Your task to perform on an android device: turn pop-ups off in chrome Image 0: 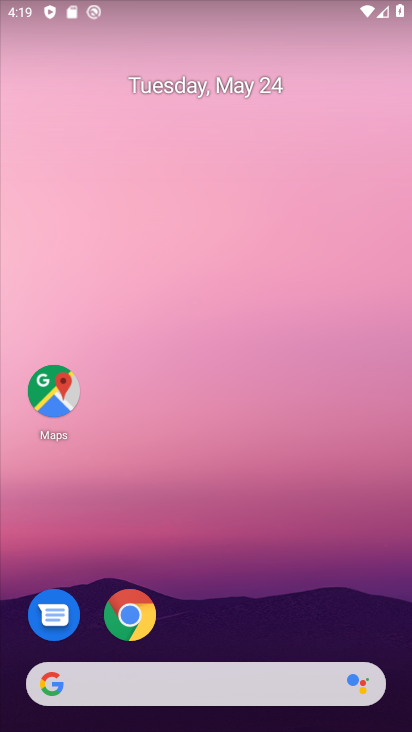
Step 0: drag from (228, 621) to (204, 165)
Your task to perform on an android device: turn pop-ups off in chrome Image 1: 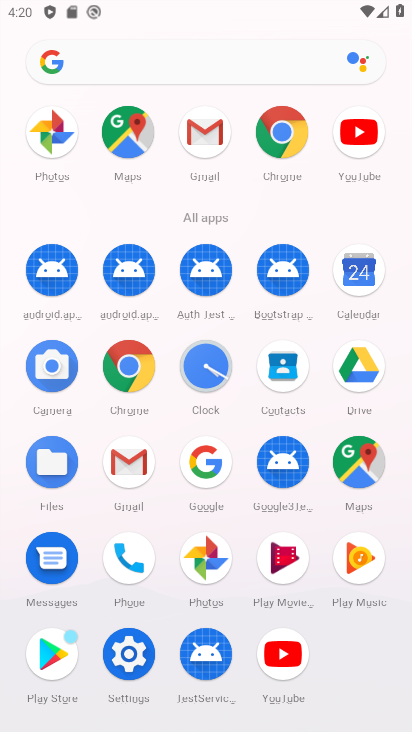
Step 1: click (269, 121)
Your task to perform on an android device: turn pop-ups off in chrome Image 2: 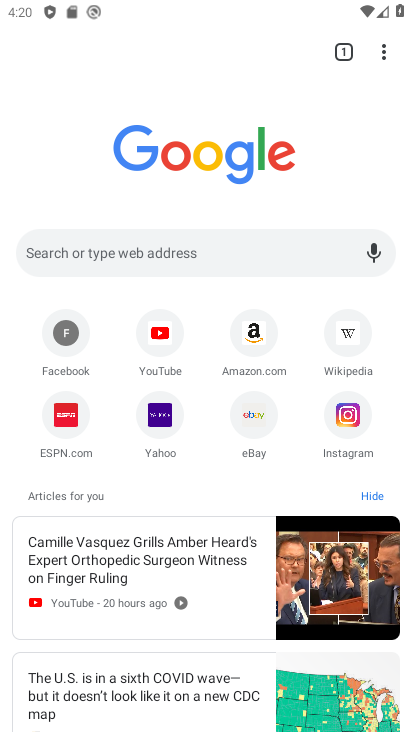
Step 2: click (391, 51)
Your task to perform on an android device: turn pop-ups off in chrome Image 3: 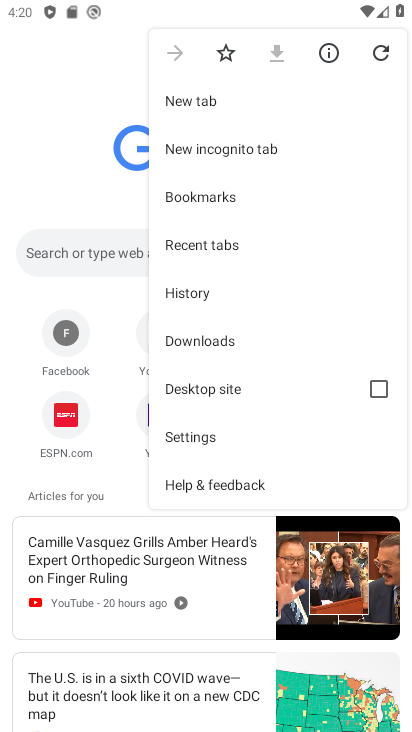
Step 3: click (226, 443)
Your task to perform on an android device: turn pop-ups off in chrome Image 4: 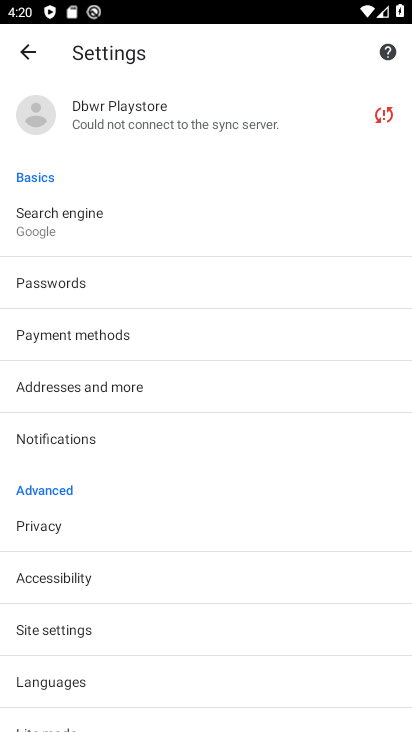
Step 4: click (162, 629)
Your task to perform on an android device: turn pop-ups off in chrome Image 5: 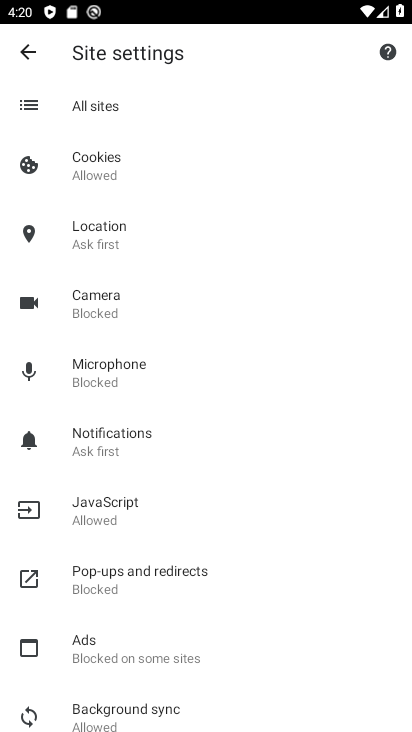
Step 5: click (214, 586)
Your task to perform on an android device: turn pop-ups off in chrome Image 6: 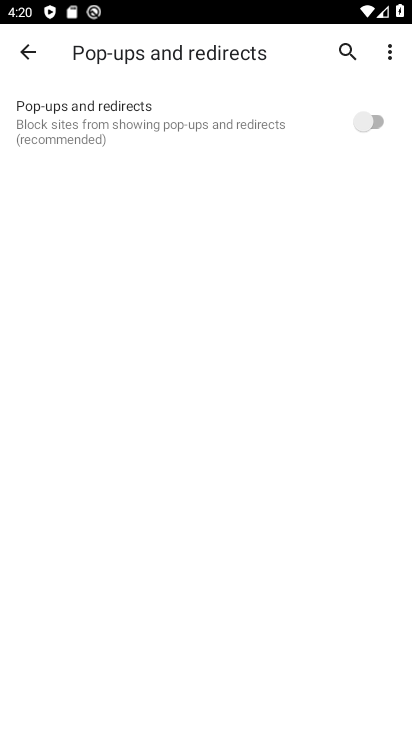
Step 6: task complete